Your task to perform on an android device: remove spam from my inbox in the gmail app Image 0: 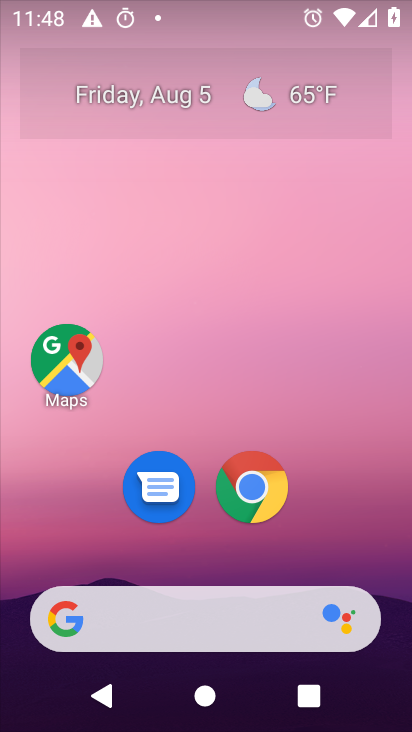
Step 0: drag from (199, 574) to (170, 75)
Your task to perform on an android device: remove spam from my inbox in the gmail app Image 1: 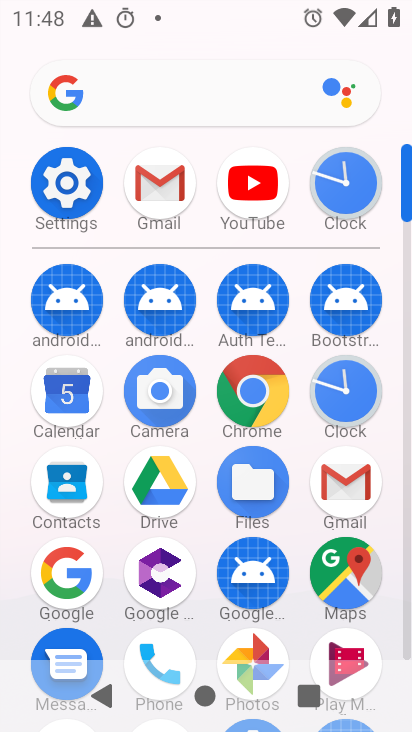
Step 1: click (167, 183)
Your task to perform on an android device: remove spam from my inbox in the gmail app Image 2: 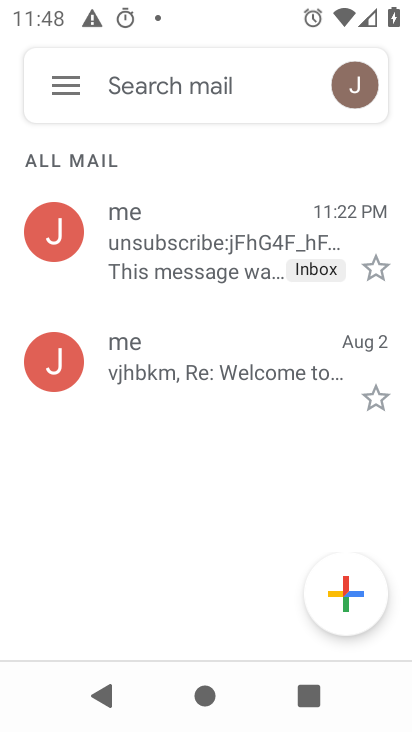
Step 2: click (59, 74)
Your task to perform on an android device: remove spam from my inbox in the gmail app Image 3: 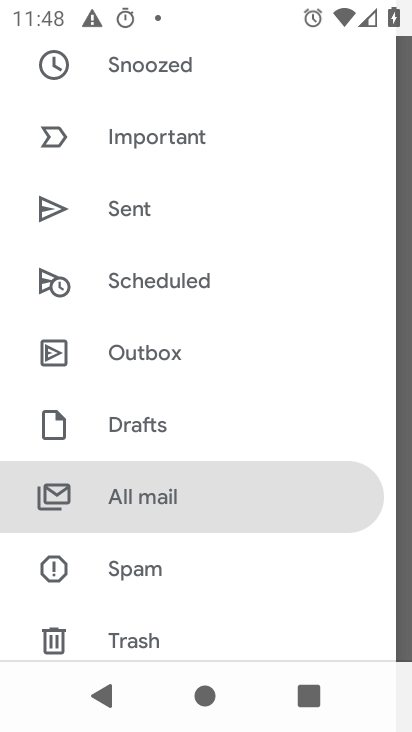
Step 3: click (161, 573)
Your task to perform on an android device: remove spam from my inbox in the gmail app Image 4: 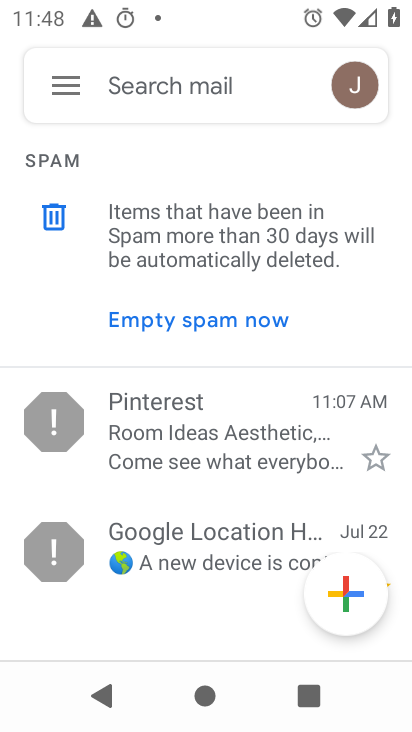
Step 4: click (48, 84)
Your task to perform on an android device: remove spam from my inbox in the gmail app Image 5: 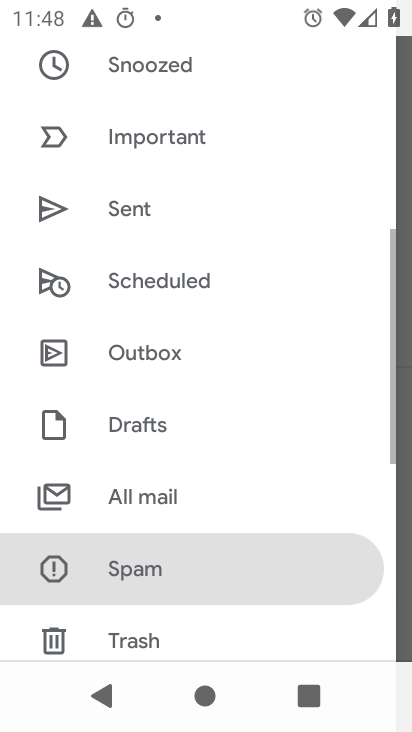
Step 5: click (101, 570)
Your task to perform on an android device: remove spam from my inbox in the gmail app Image 6: 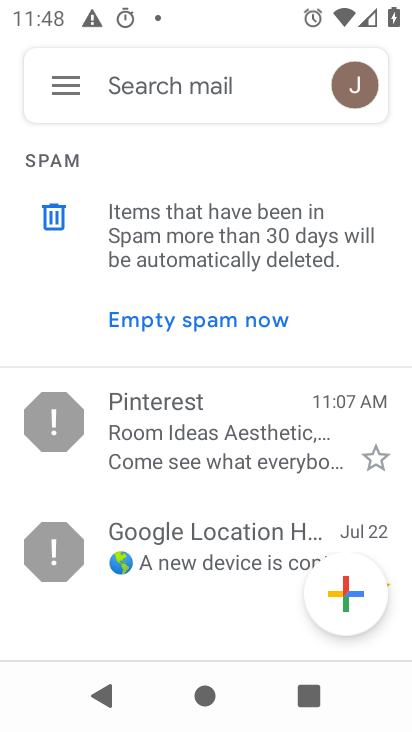
Step 6: click (153, 307)
Your task to perform on an android device: remove spam from my inbox in the gmail app Image 7: 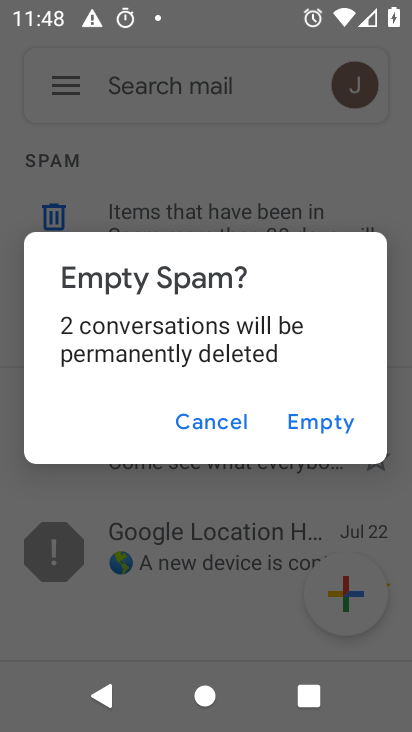
Step 7: click (328, 414)
Your task to perform on an android device: remove spam from my inbox in the gmail app Image 8: 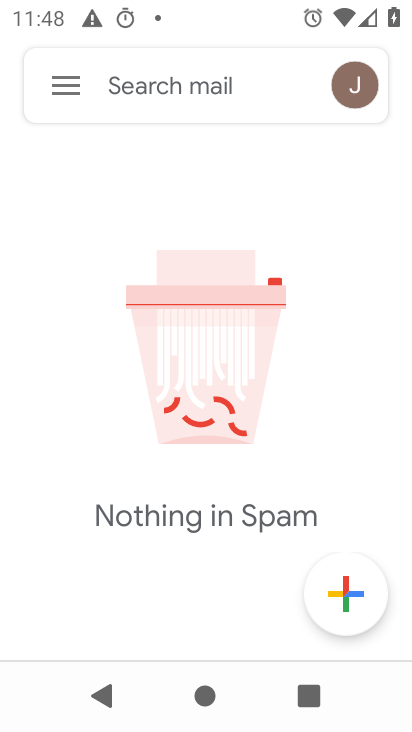
Step 8: task complete